Your task to perform on an android device: open device folders in google photos Image 0: 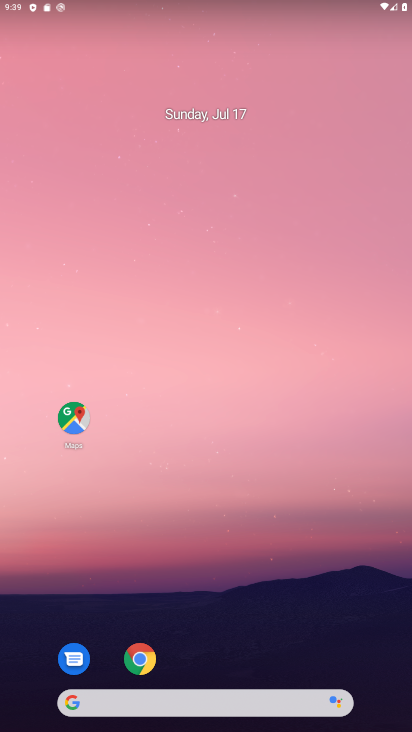
Step 0: drag from (192, 681) to (192, 125)
Your task to perform on an android device: open device folders in google photos Image 1: 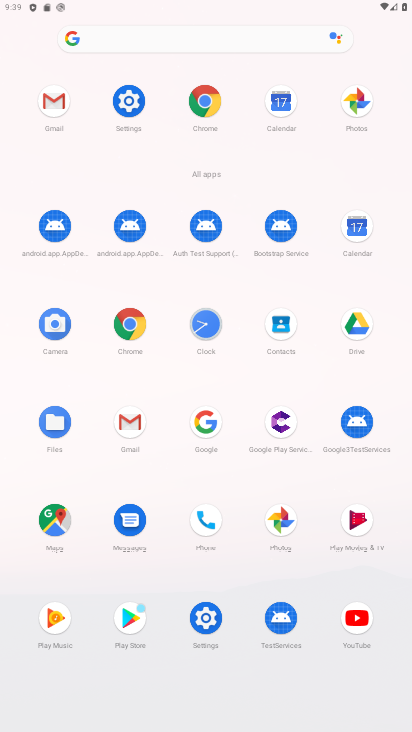
Step 1: click (285, 524)
Your task to perform on an android device: open device folders in google photos Image 2: 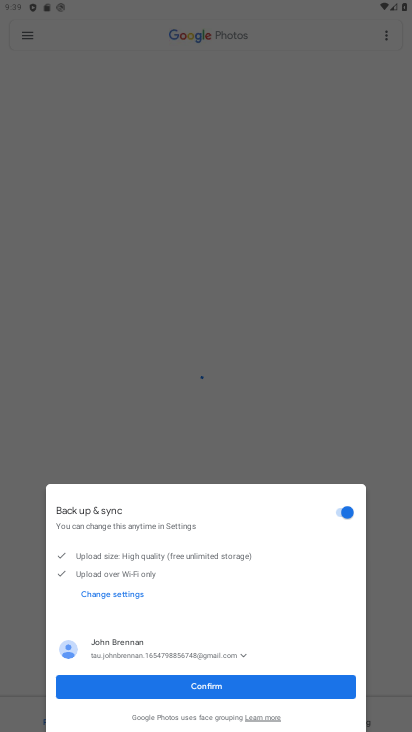
Step 2: click (250, 691)
Your task to perform on an android device: open device folders in google photos Image 3: 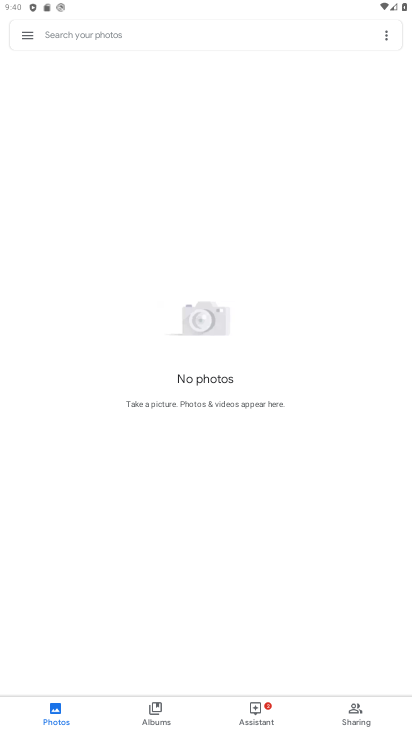
Step 3: click (30, 36)
Your task to perform on an android device: open device folders in google photos Image 4: 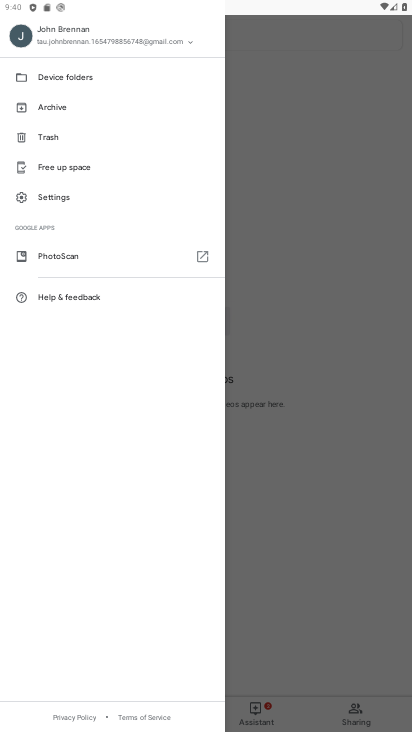
Step 4: click (82, 73)
Your task to perform on an android device: open device folders in google photos Image 5: 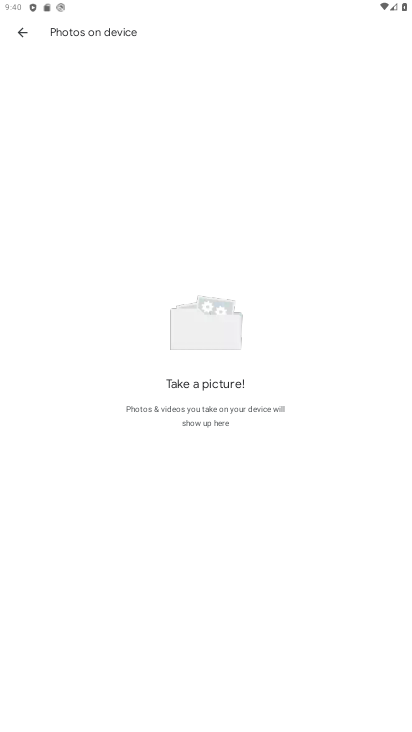
Step 5: task complete